Your task to perform on an android device: turn off notifications settings in the gmail app Image 0: 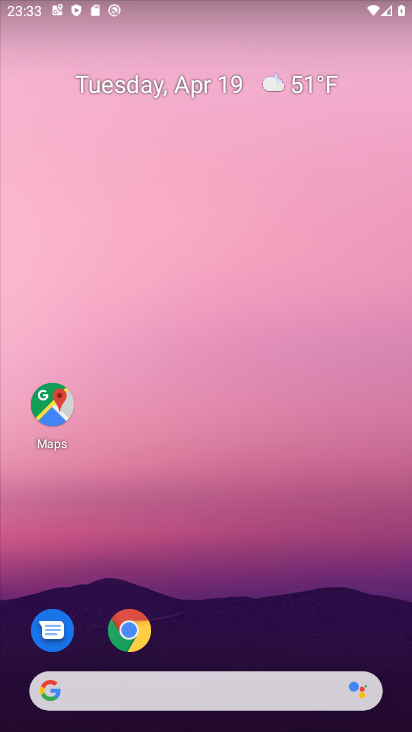
Step 0: drag from (216, 619) to (172, 261)
Your task to perform on an android device: turn off notifications settings in the gmail app Image 1: 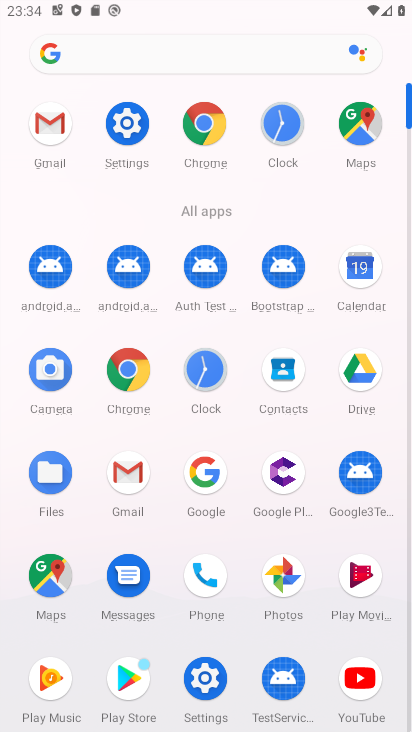
Step 1: click (57, 133)
Your task to perform on an android device: turn off notifications settings in the gmail app Image 2: 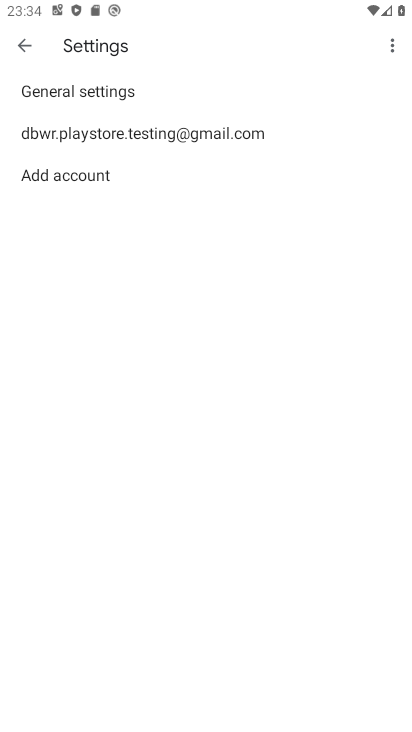
Step 2: click (57, 133)
Your task to perform on an android device: turn off notifications settings in the gmail app Image 3: 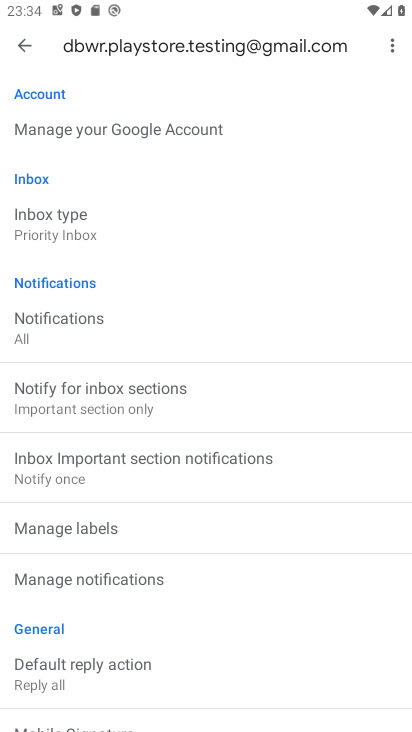
Step 3: drag from (190, 574) to (245, 213)
Your task to perform on an android device: turn off notifications settings in the gmail app Image 4: 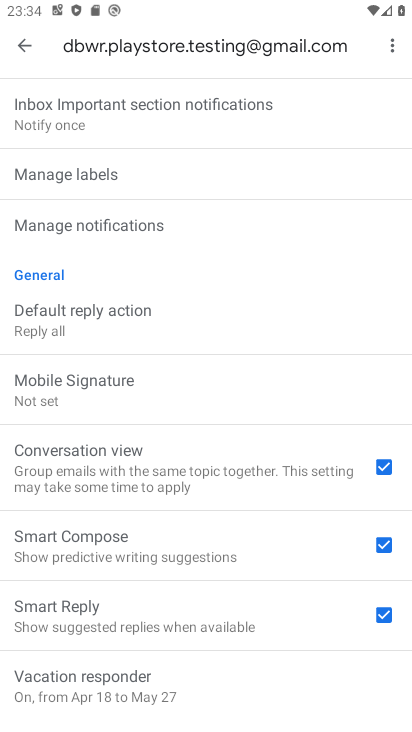
Step 4: click (229, 218)
Your task to perform on an android device: turn off notifications settings in the gmail app Image 5: 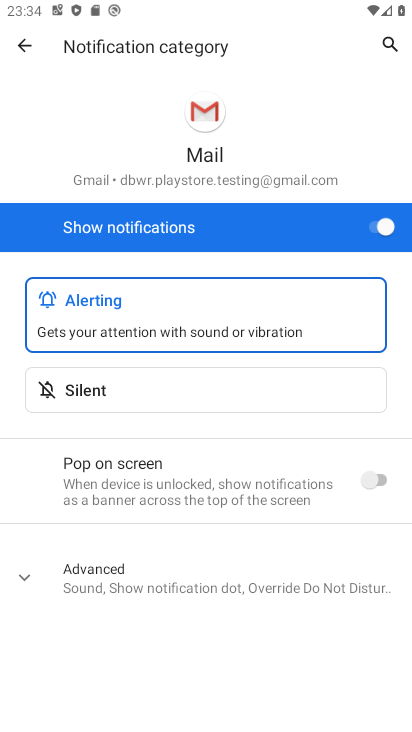
Step 5: click (296, 567)
Your task to perform on an android device: turn off notifications settings in the gmail app Image 6: 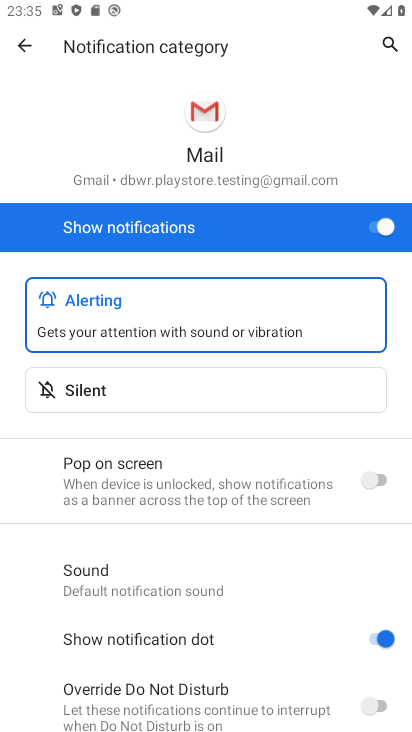
Step 6: drag from (393, 402) to (381, 194)
Your task to perform on an android device: turn off notifications settings in the gmail app Image 7: 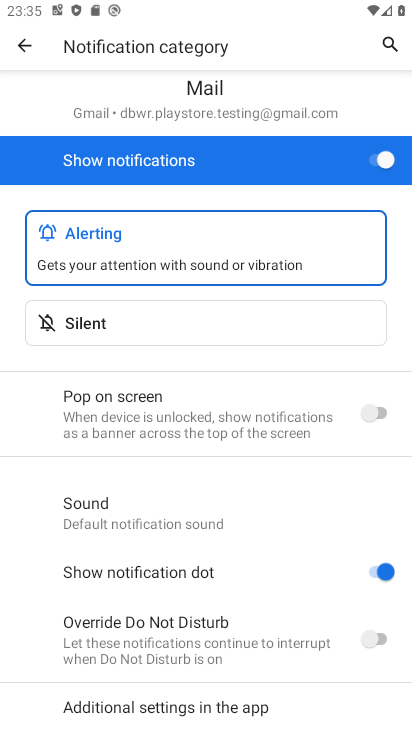
Step 7: click (370, 571)
Your task to perform on an android device: turn off notifications settings in the gmail app Image 8: 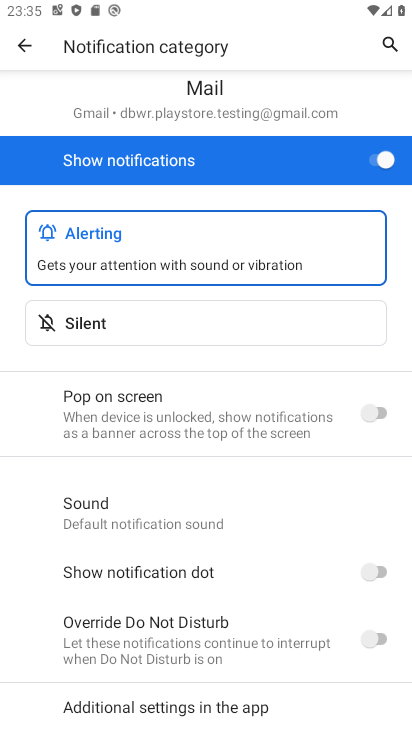
Step 8: task complete